Your task to perform on an android device: Open settings on Google Maps Image 0: 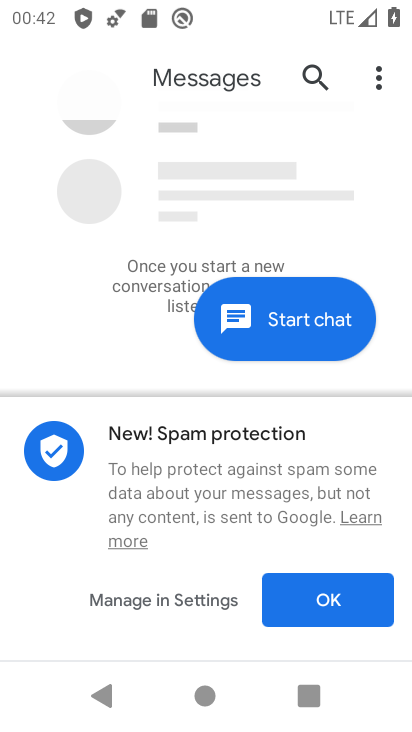
Step 0: press home button
Your task to perform on an android device: Open settings on Google Maps Image 1: 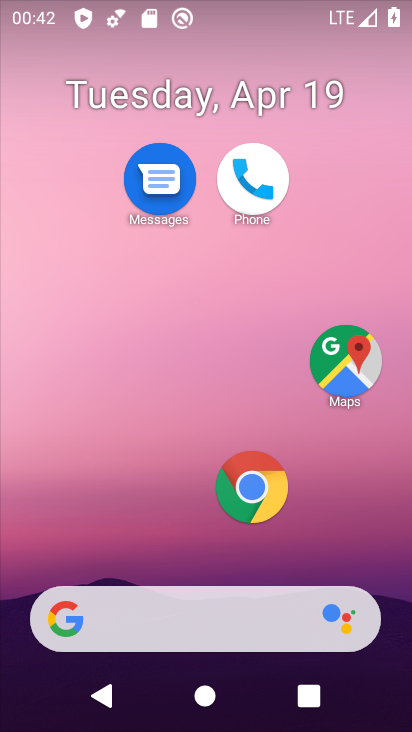
Step 1: click (346, 365)
Your task to perform on an android device: Open settings on Google Maps Image 2: 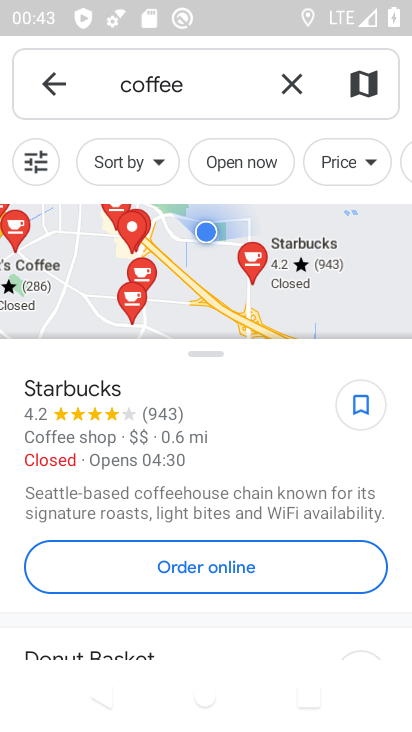
Step 2: click (287, 83)
Your task to perform on an android device: Open settings on Google Maps Image 3: 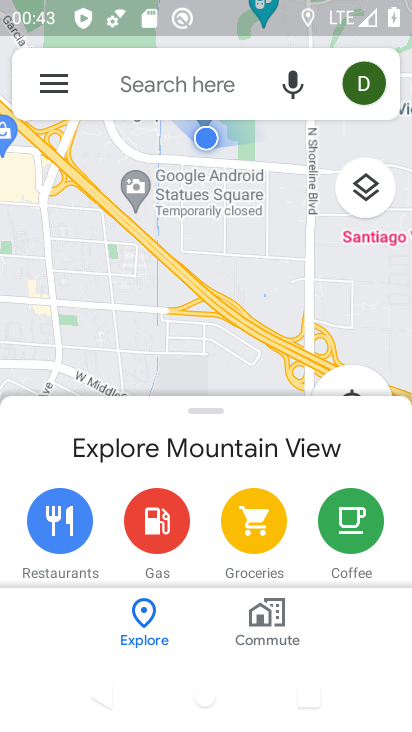
Step 3: click (57, 78)
Your task to perform on an android device: Open settings on Google Maps Image 4: 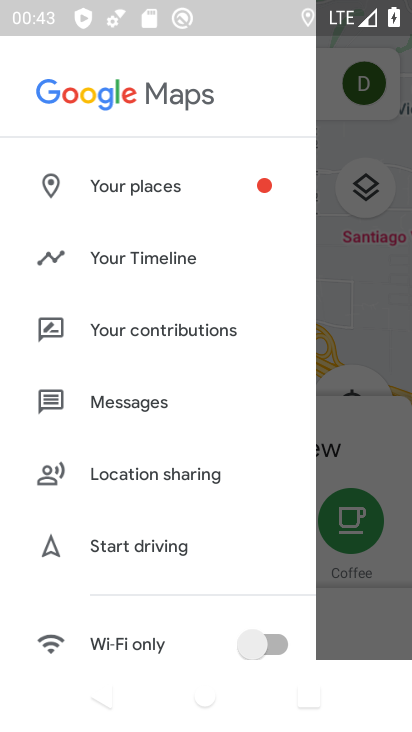
Step 4: drag from (160, 582) to (185, 51)
Your task to perform on an android device: Open settings on Google Maps Image 5: 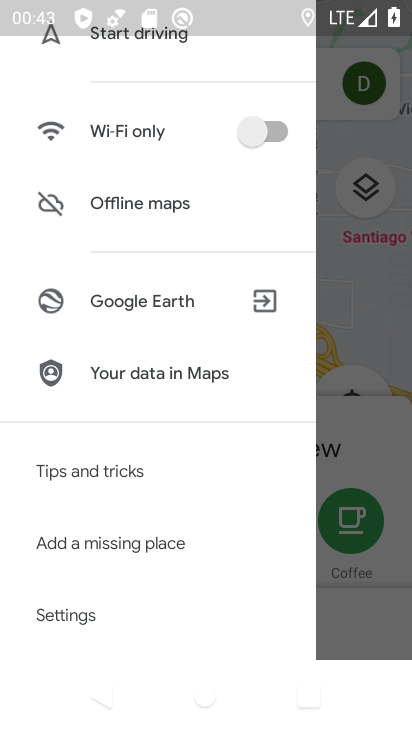
Step 5: drag from (144, 474) to (106, 170)
Your task to perform on an android device: Open settings on Google Maps Image 6: 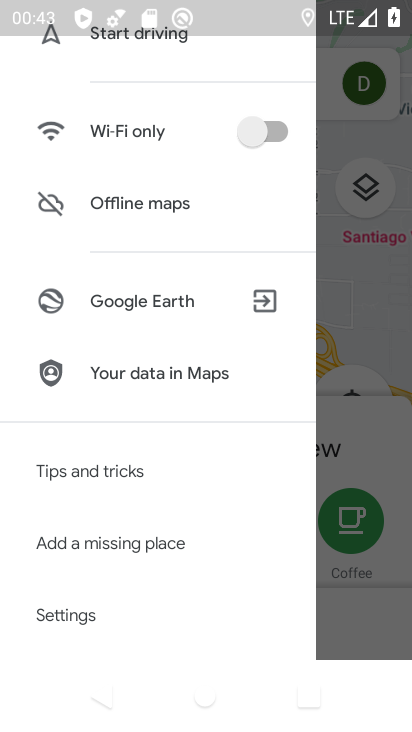
Step 6: click (85, 614)
Your task to perform on an android device: Open settings on Google Maps Image 7: 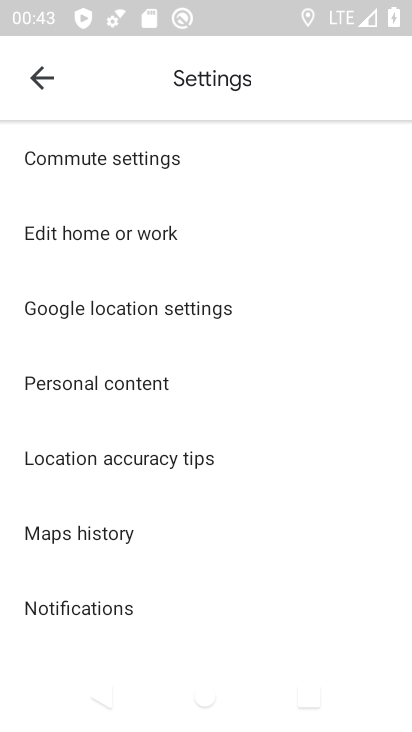
Step 7: task complete